Your task to perform on an android device: uninstall "VLC for Android" Image 0: 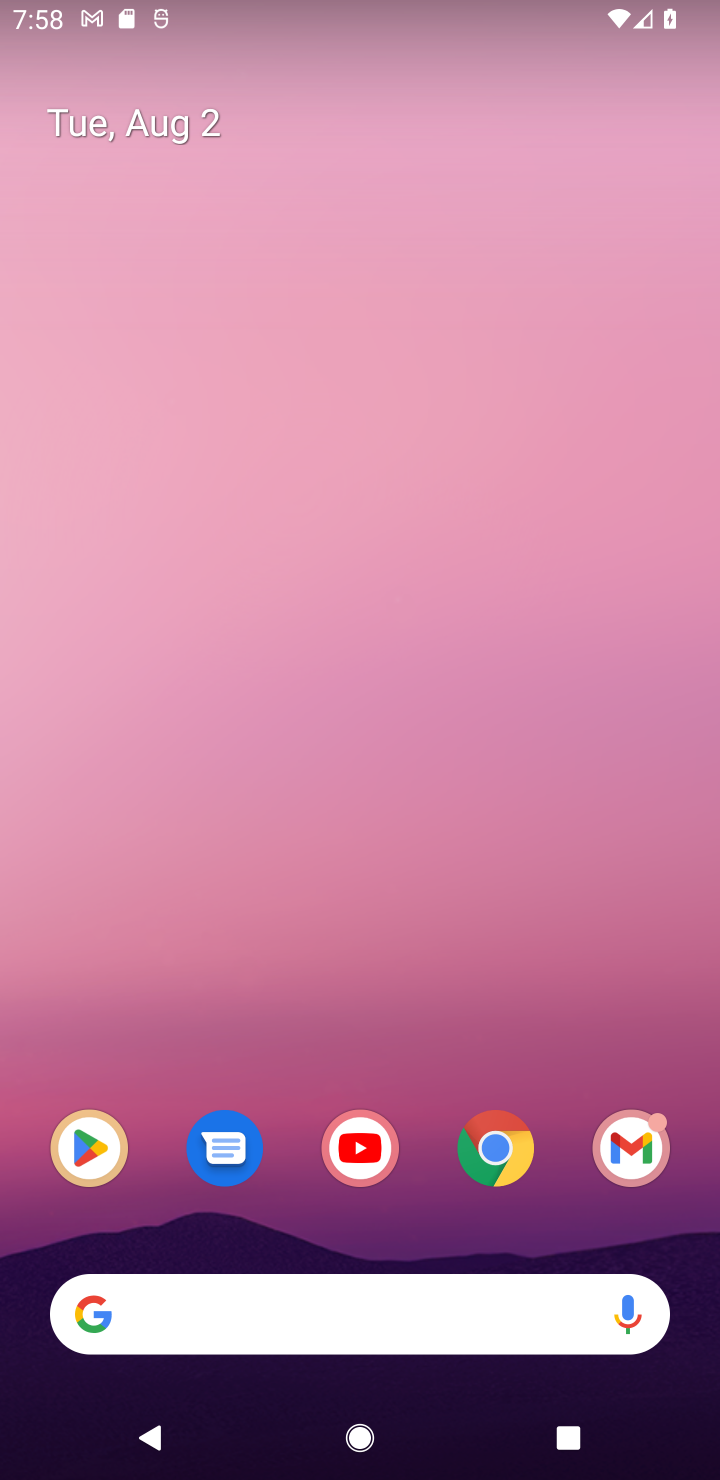
Step 0: drag from (505, 1062) to (167, 161)
Your task to perform on an android device: uninstall "VLC for Android" Image 1: 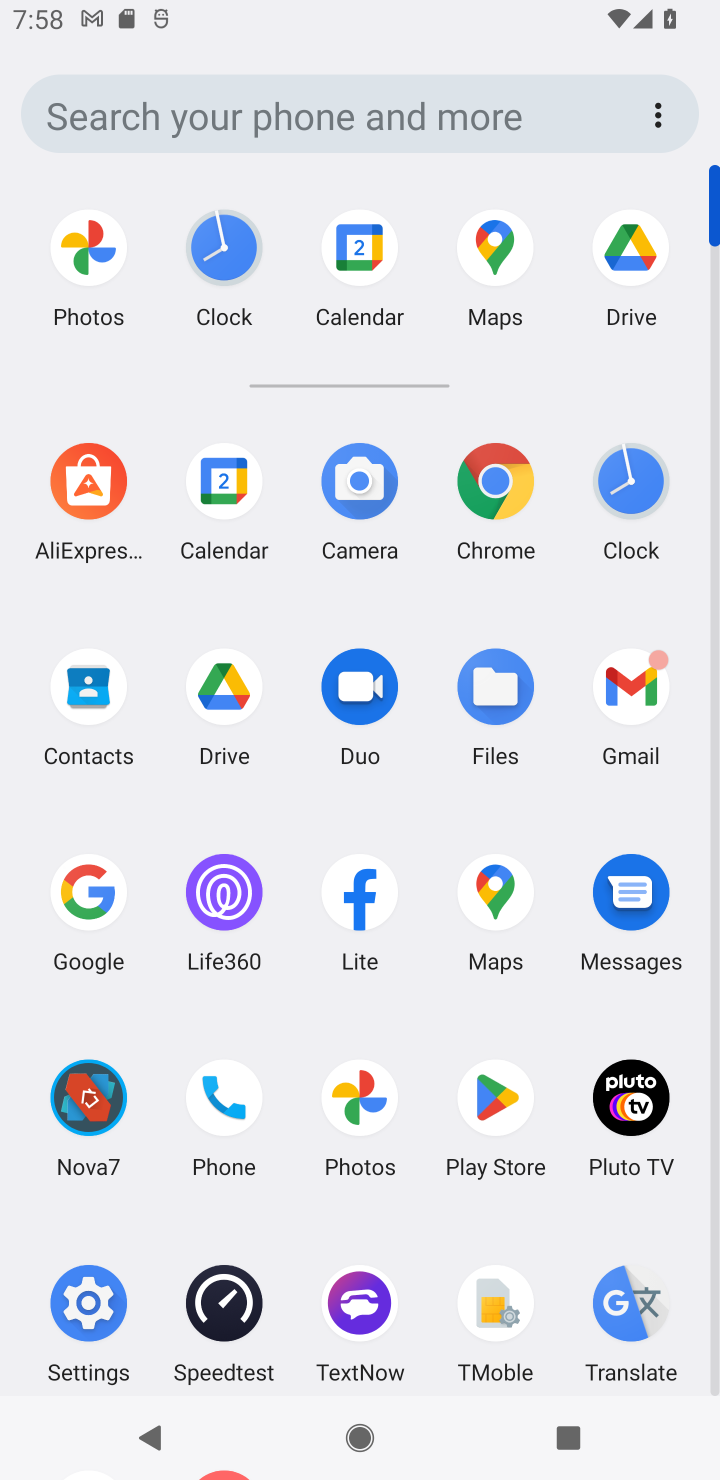
Step 1: click (498, 1098)
Your task to perform on an android device: uninstall "VLC for Android" Image 2: 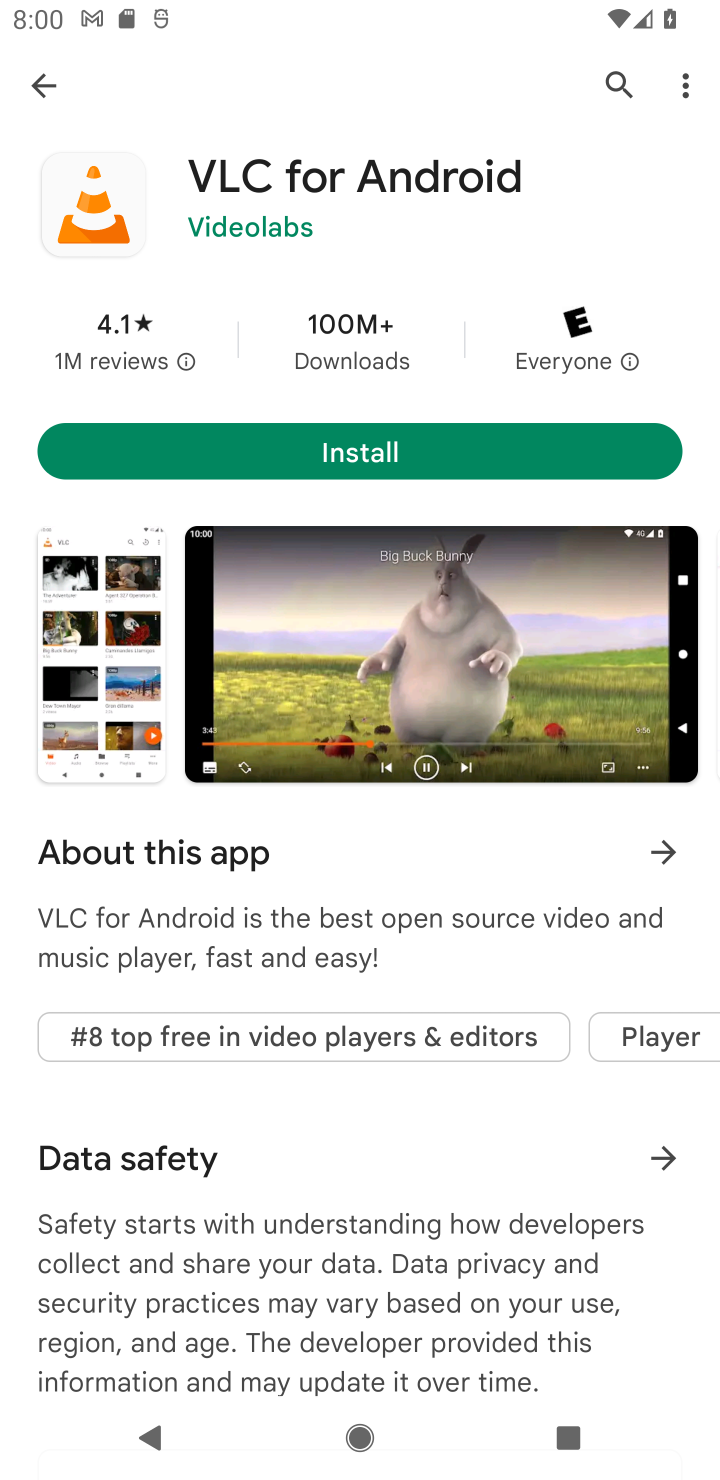
Step 2: task complete